Your task to perform on an android device: clear all cookies in the chrome app Image 0: 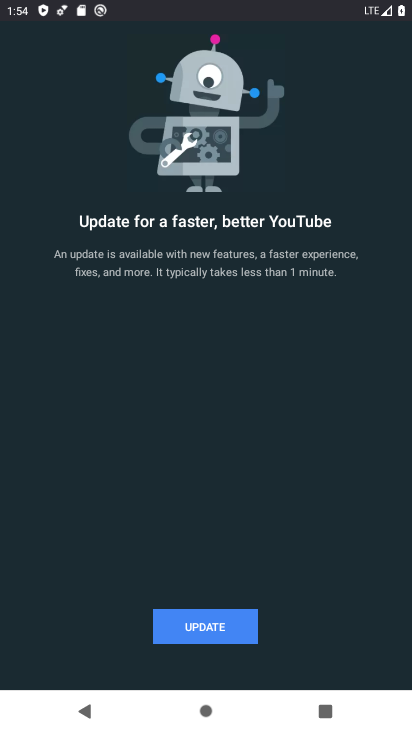
Step 0: drag from (288, 558) to (277, 439)
Your task to perform on an android device: clear all cookies in the chrome app Image 1: 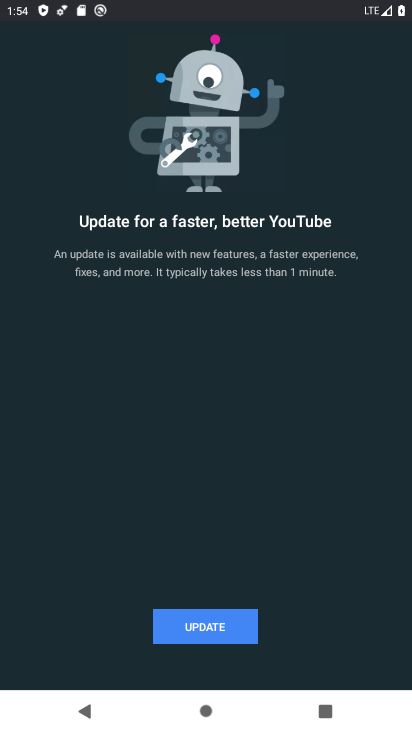
Step 1: press home button
Your task to perform on an android device: clear all cookies in the chrome app Image 2: 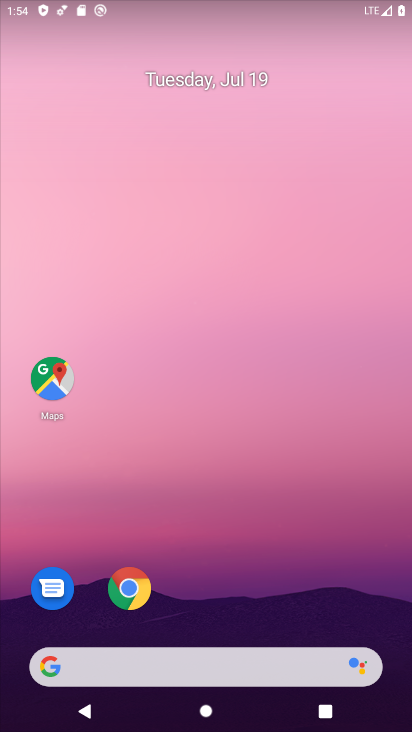
Step 2: click (124, 587)
Your task to perform on an android device: clear all cookies in the chrome app Image 3: 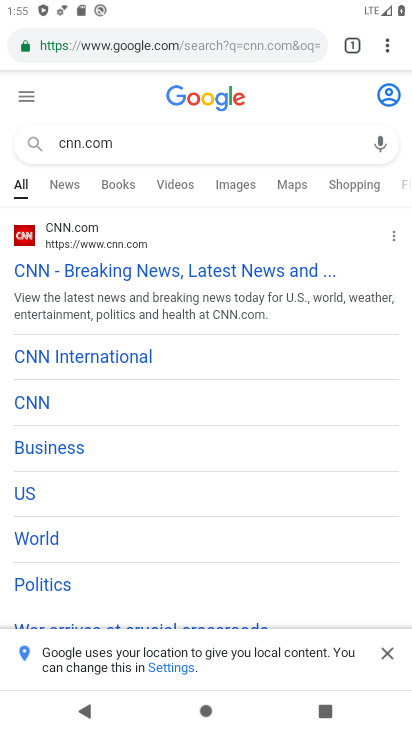
Step 3: click (384, 38)
Your task to perform on an android device: clear all cookies in the chrome app Image 4: 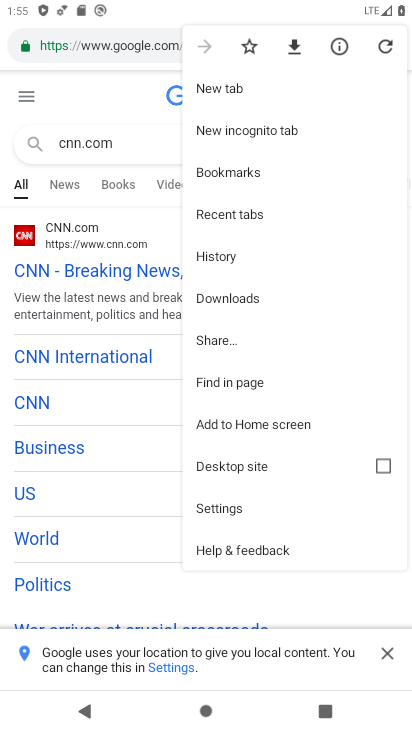
Step 4: click (219, 503)
Your task to perform on an android device: clear all cookies in the chrome app Image 5: 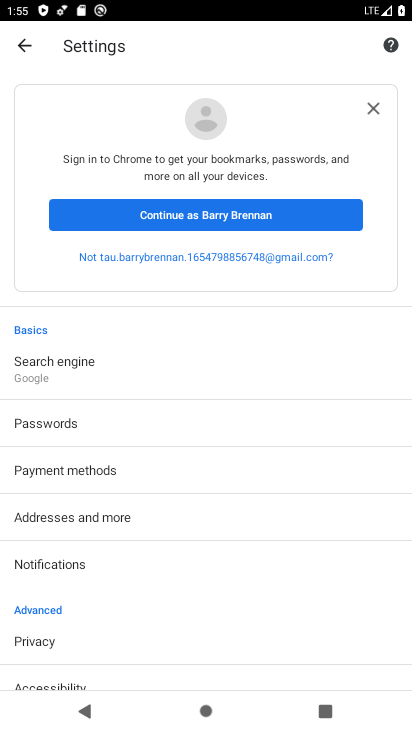
Step 5: click (30, 637)
Your task to perform on an android device: clear all cookies in the chrome app Image 6: 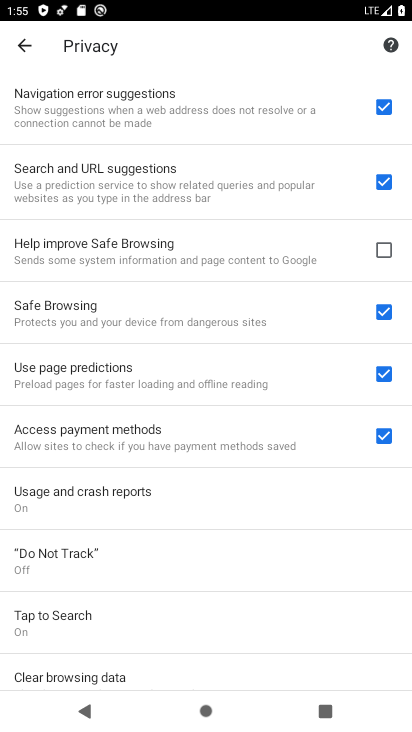
Step 6: drag from (162, 634) to (136, 341)
Your task to perform on an android device: clear all cookies in the chrome app Image 7: 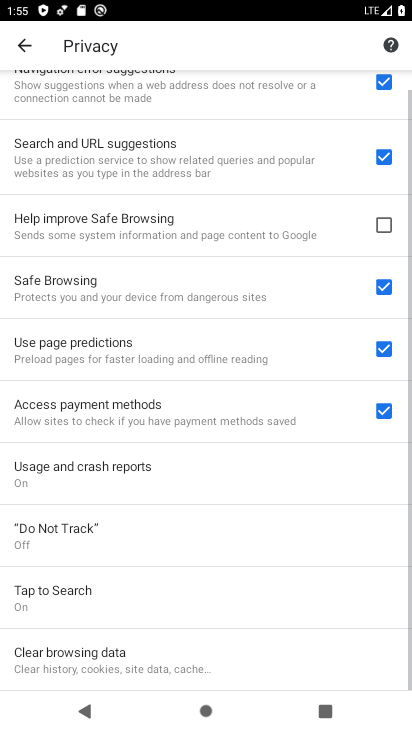
Step 7: click (66, 653)
Your task to perform on an android device: clear all cookies in the chrome app Image 8: 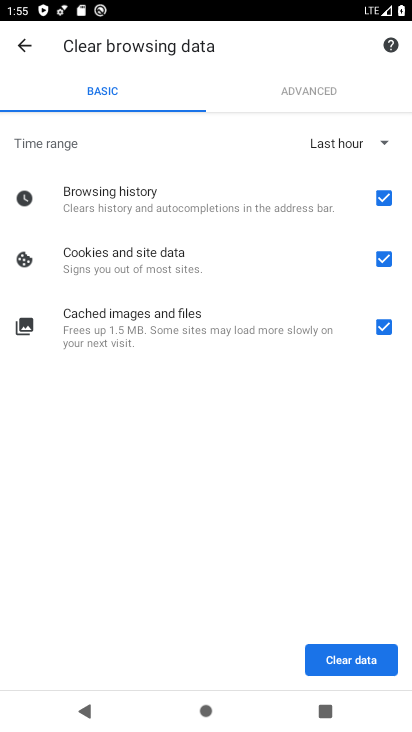
Step 8: click (376, 196)
Your task to perform on an android device: clear all cookies in the chrome app Image 9: 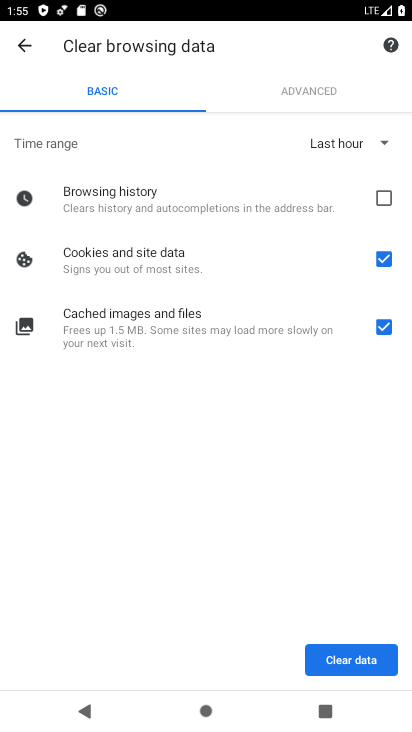
Step 9: click (384, 324)
Your task to perform on an android device: clear all cookies in the chrome app Image 10: 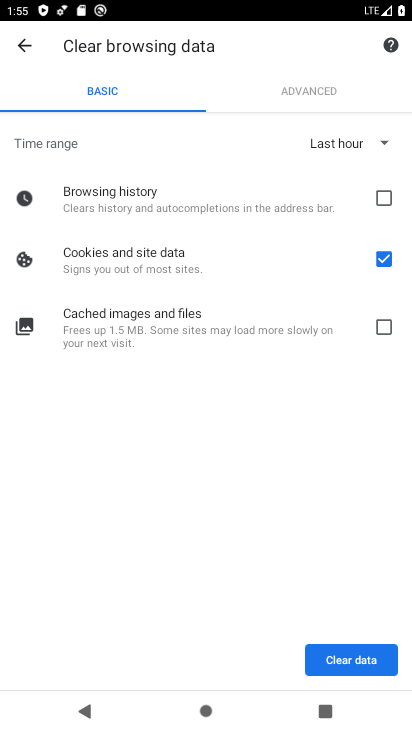
Step 10: click (348, 659)
Your task to perform on an android device: clear all cookies in the chrome app Image 11: 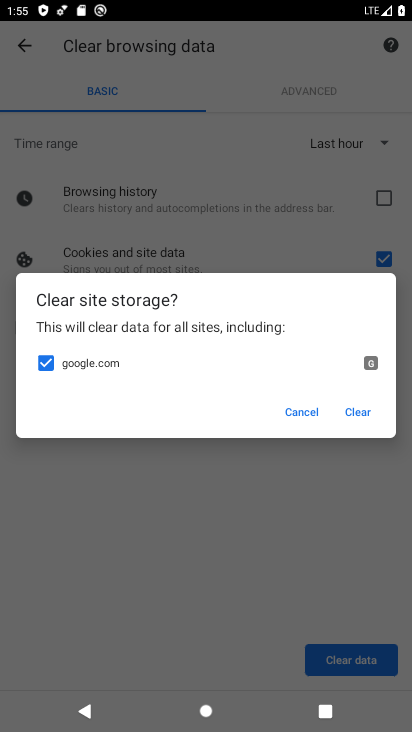
Step 11: click (354, 409)
Your task to perform on an android device: clear all cookies in the chrome app Image 12: 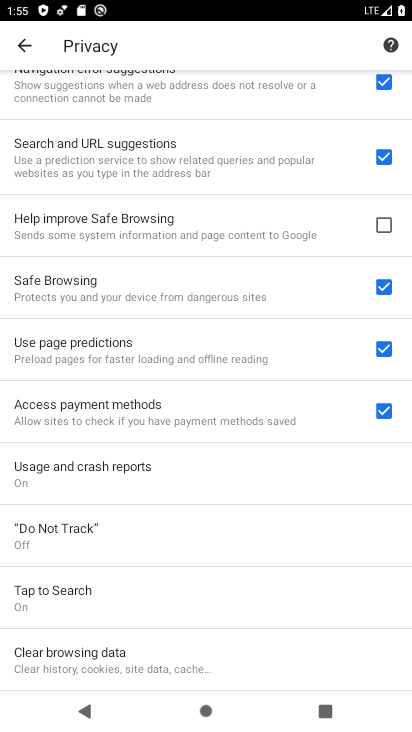
Step 12: task complete